Your task to perform on an android device: search for starred emails in the gmail app Image 0: 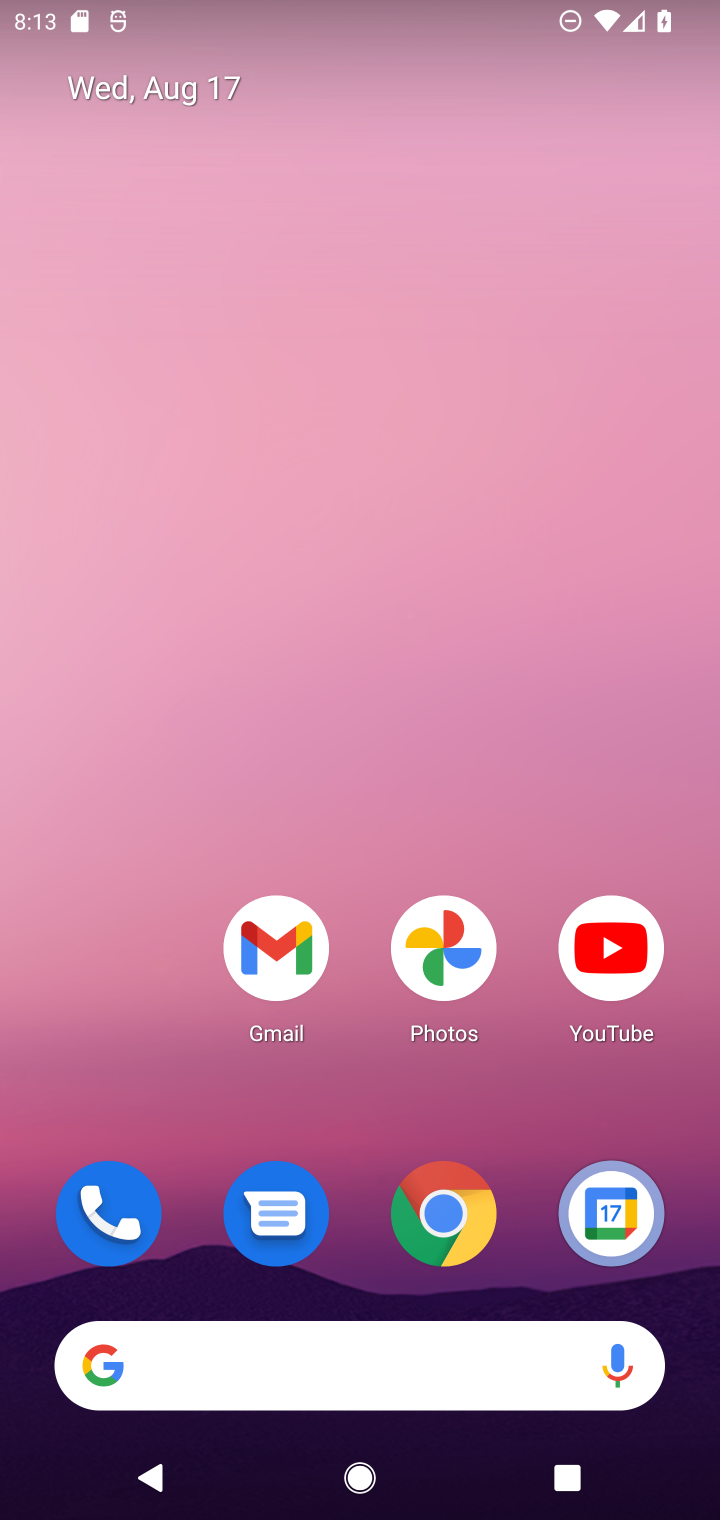
Step 0: click (325, 1004)
Your task to perform on an android device: search for starred emails in the gmail app Image 1: 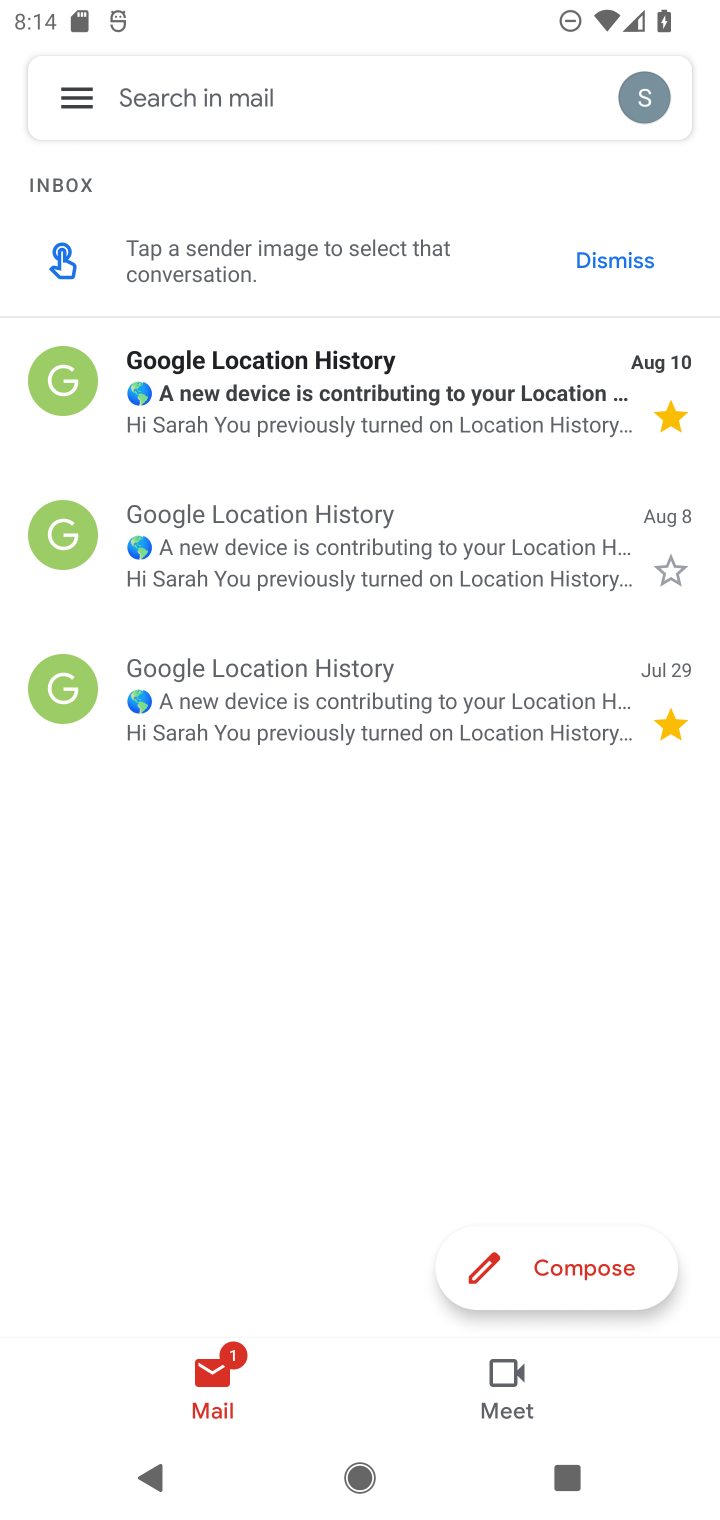
Step 1: click (69, 131)
Your task to perform on an android device: search for starred emails in the gmail app Image 2: 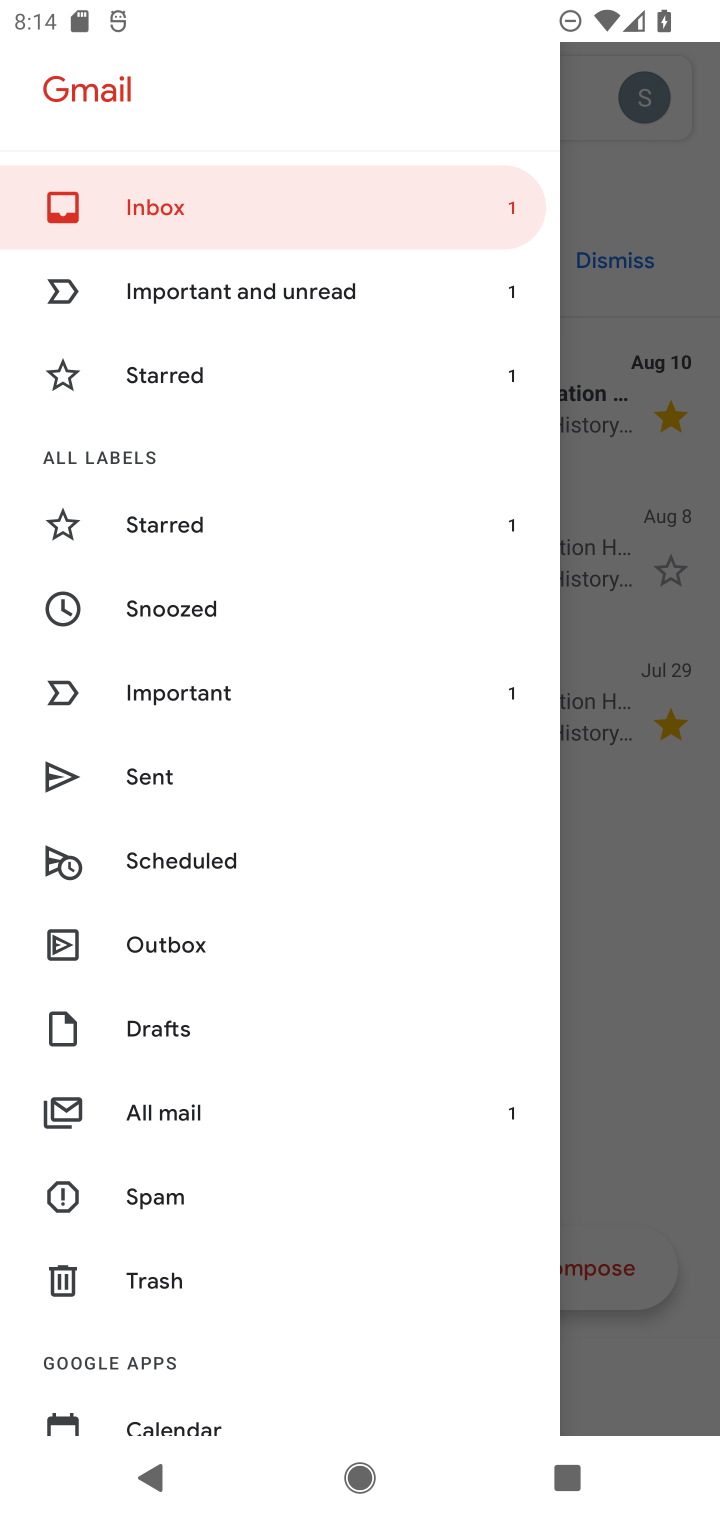
Step 2: click (167, 399)
Your task to perform on an android device: search for starred emails in the gmail app Image 3: 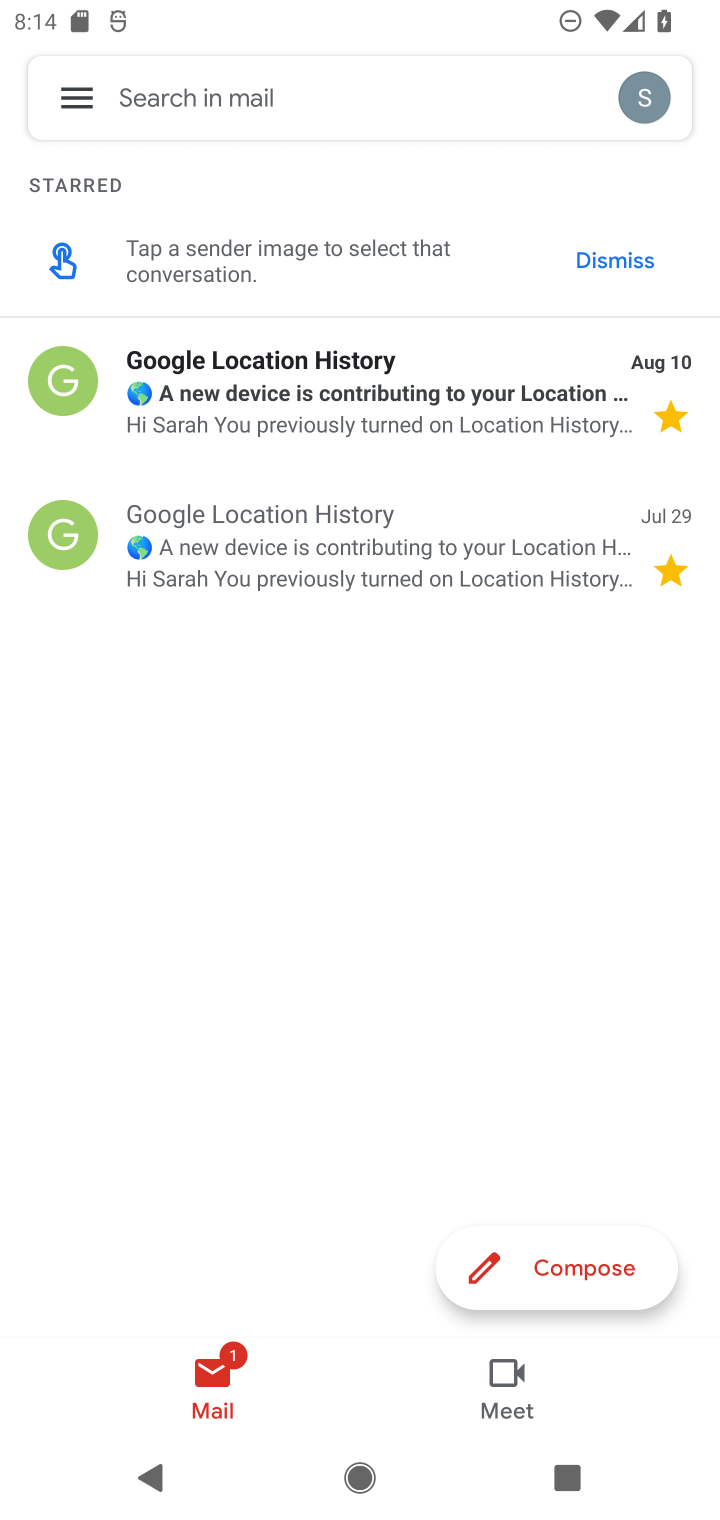
Step 3: task complete